Your task to perform on an android device: What's the weather going to be this weekend? Image 0: 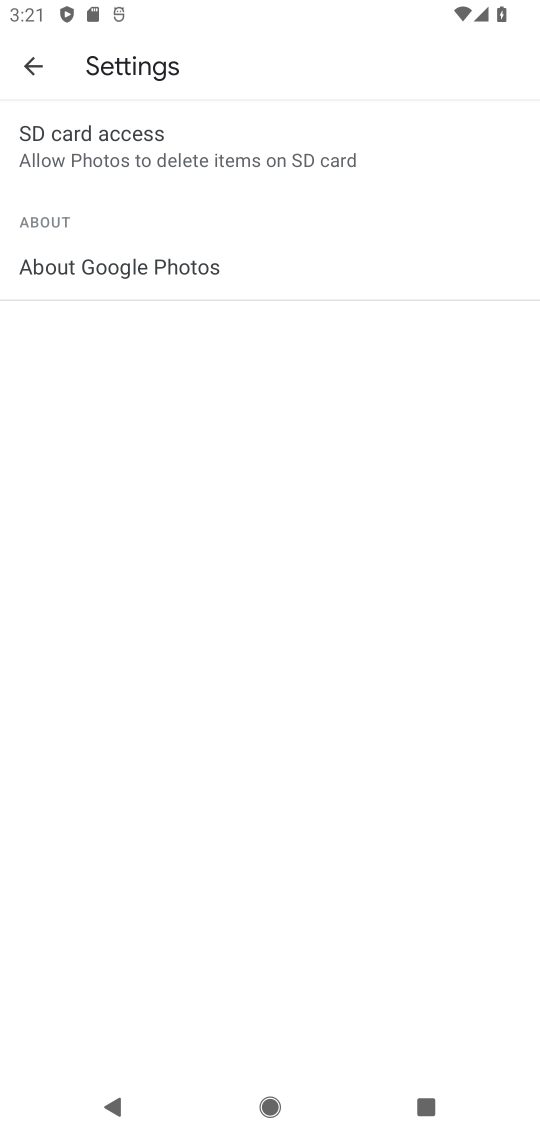
Step 0: press home button
Your task to perform on an android device: What's the weather going to be this weekend? Image 1: 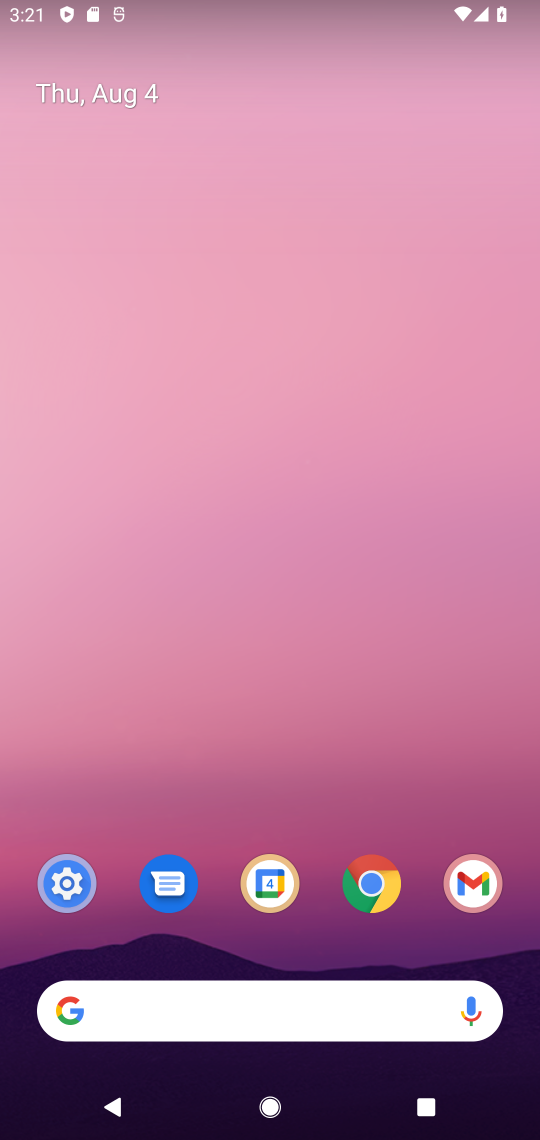
Step 1: drag from (339, 788) to (203, 125)
Your task to perform on an android device: What's the weather going to be this weekend? Image 2: 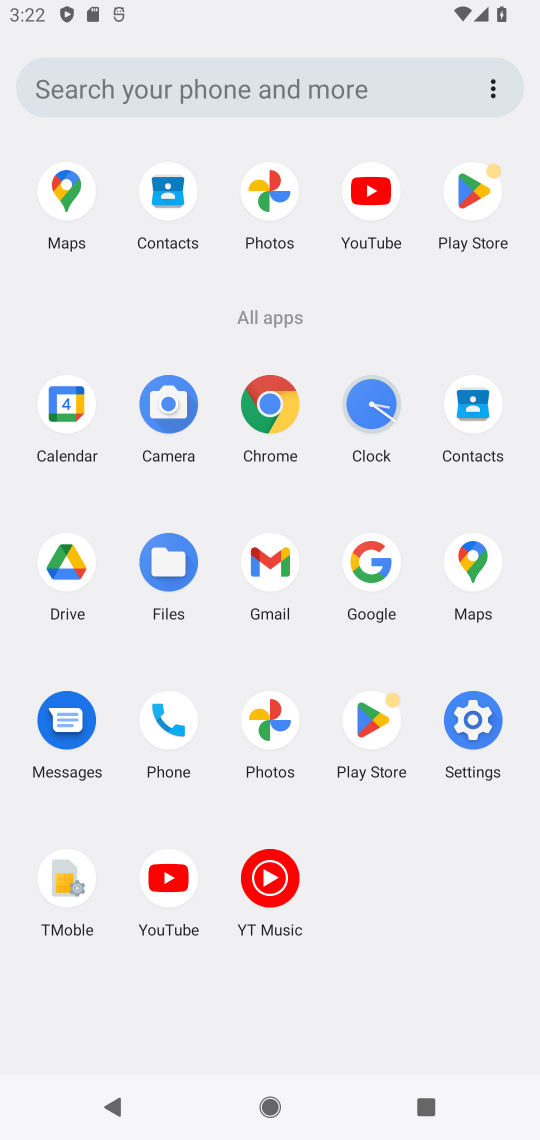
Step 2: click (392, 564)
Your task to perform on an android device: What's the weather going to be this weekend? Image 3: 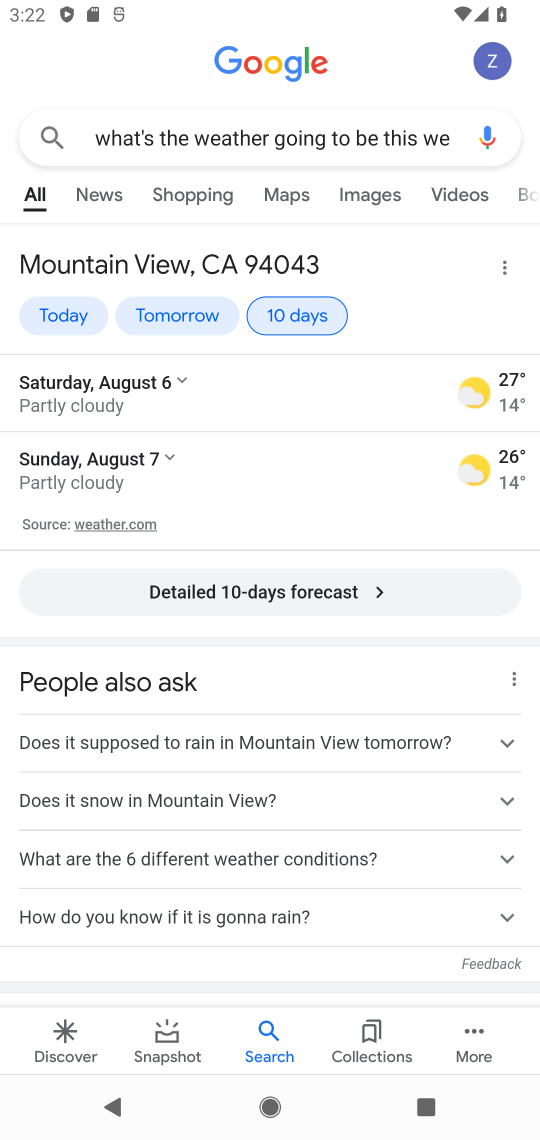
Step 3: press back button
Your task to perform on an android device: What's the weather going to be this weekend? Image 4: 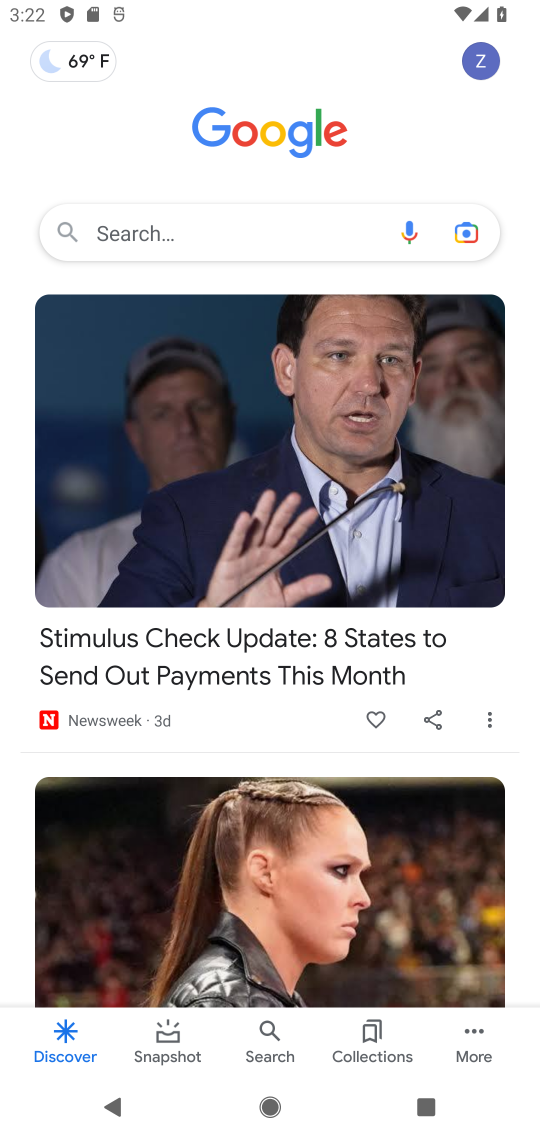
Step 4: click (151, 247)
Your task to perform on an android device: What's the weather going to be this weekend? Image 5: 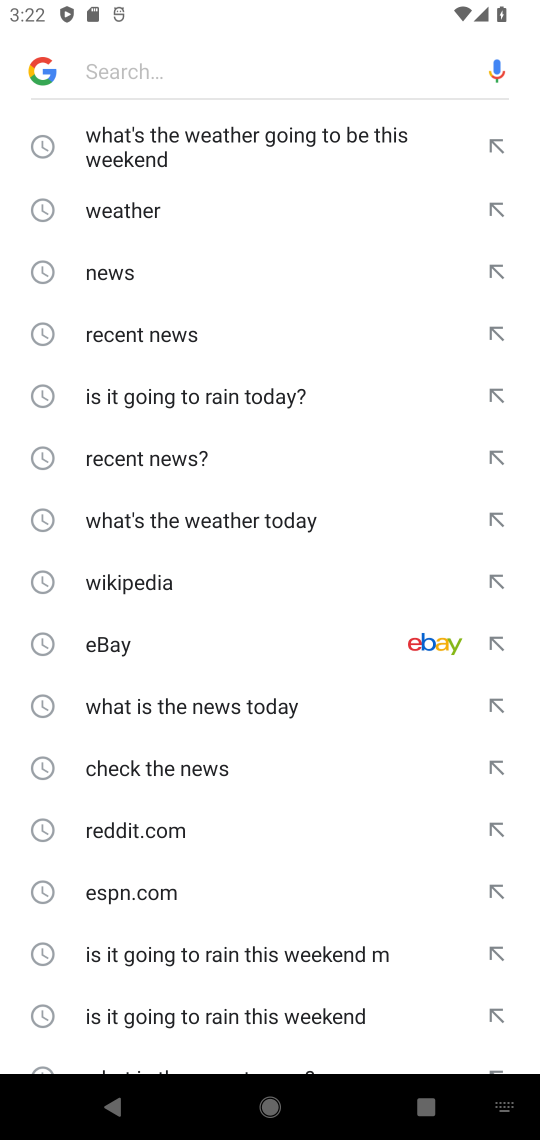
Step 5: click (209, 154)
Your task to perform on an android device: What's the weather going to be this weekend? Image 6: 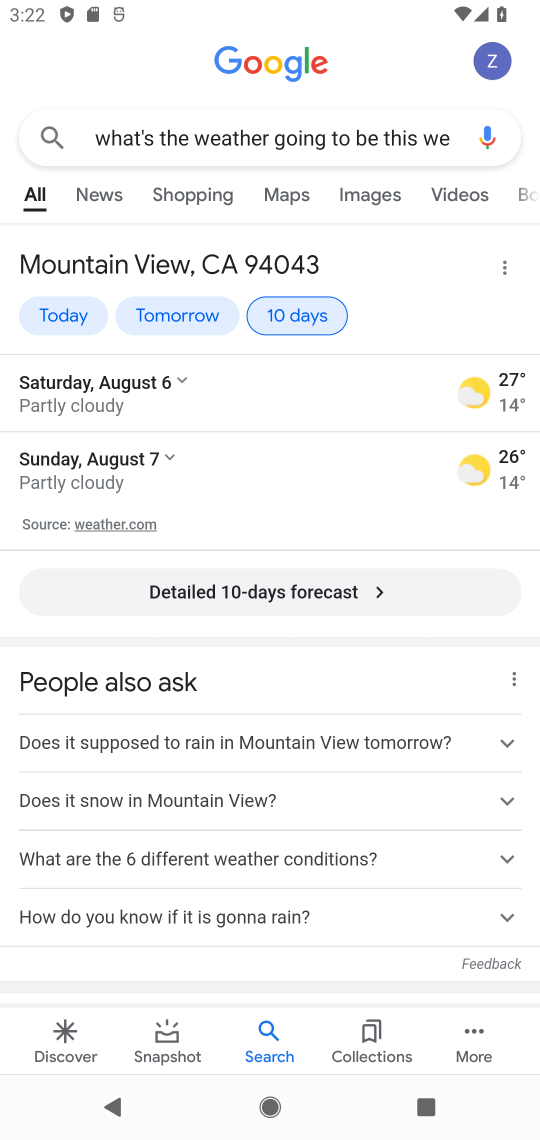
Step 6: task complete